Your task to perform on an android device: turn on improve location accuracy Image 0: 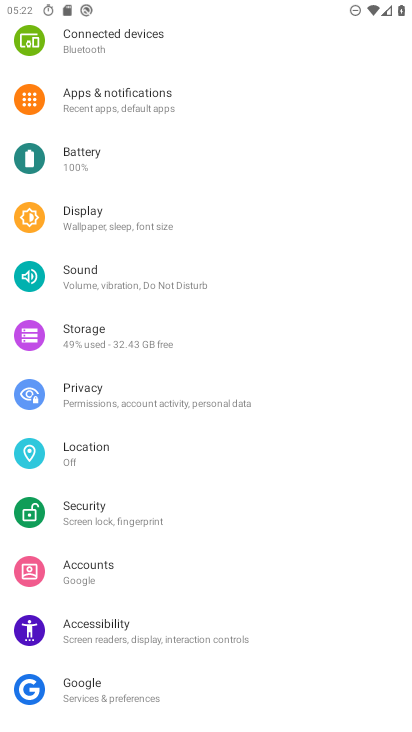
Step 0: click (112, 457)
Your task to perform on an android device: turn on improve location accuracy Image 1: 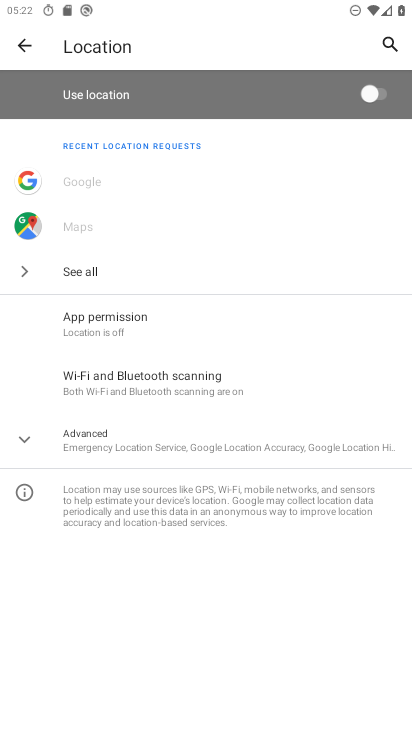
Step 1: click (126, 458)
Your task to perform on an android device: turn on improve location accuracy Image 2: 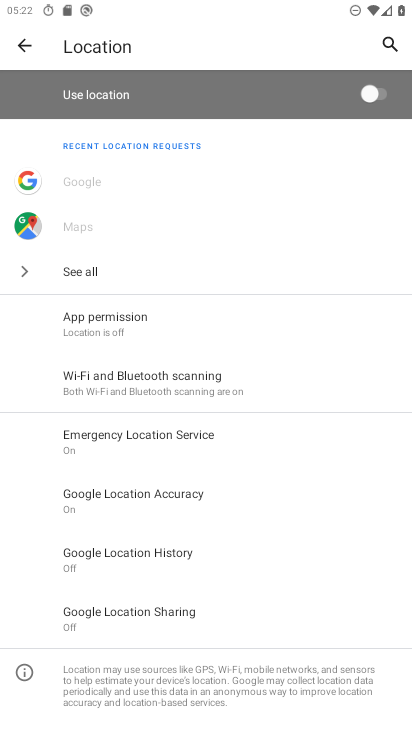
Step 2: click (151, 507)
Your task to perform on an android device: turn on improve location accuracy Image 3: 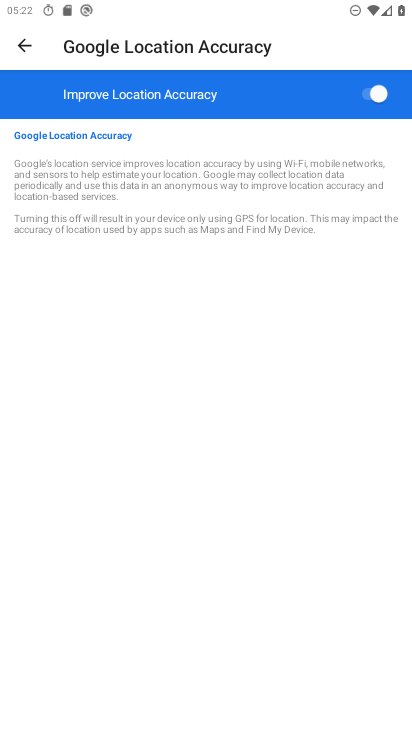
Step 3: task complete